Your task to perform on an android device: Show me popular games on the Play Store Image 0: 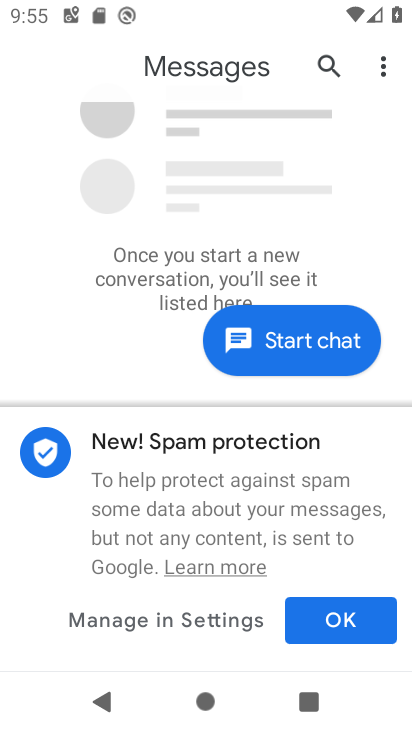
Step 0: press home button
Your task to perform on an android device: Show me popular games on the Play Store Image 1: 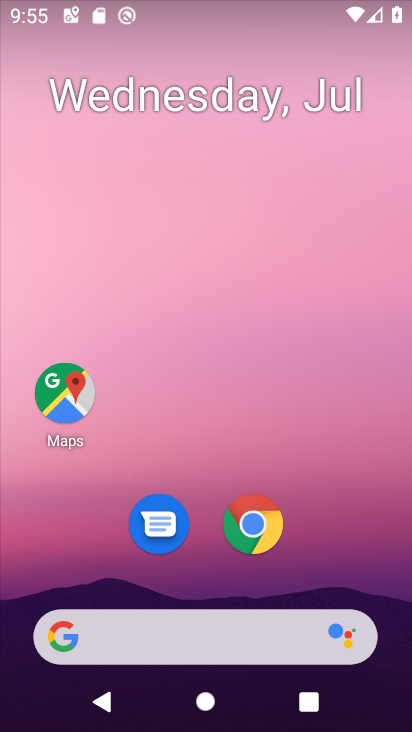
Step 1: drag from (325, 543) to (338, 83)
Your task to perform on an android device: Show me popular games on the Play Store Image 2: 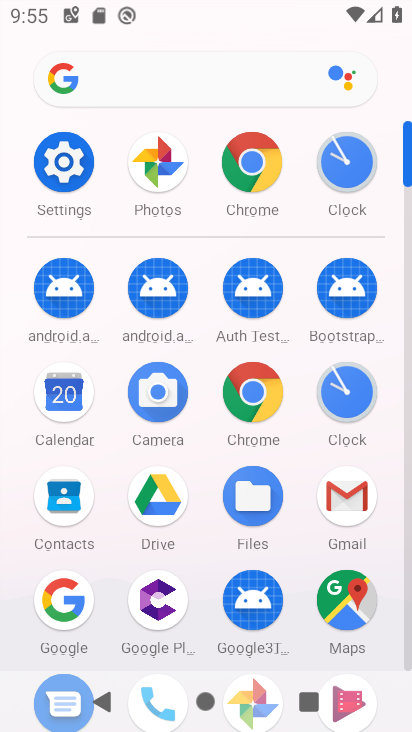
Step 2: drag from (297, 495) to (308, 189)
Your task to perform on an android device: Show me popular games on the Play Store Image 3: 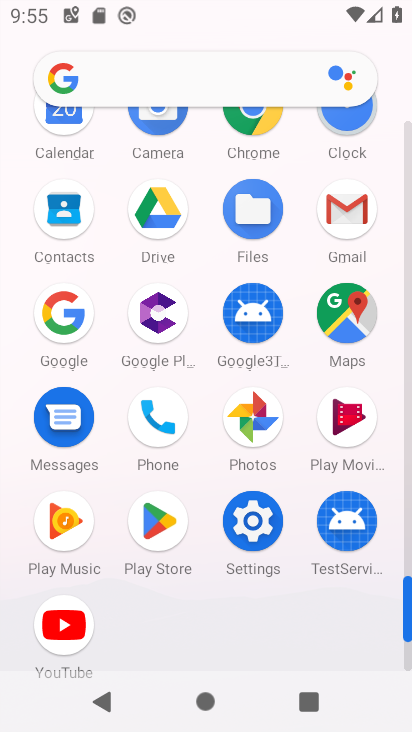
Step 3: click (162, 528)
Your task to perform on an android device: Show me popular games on the Play Store Image 4: 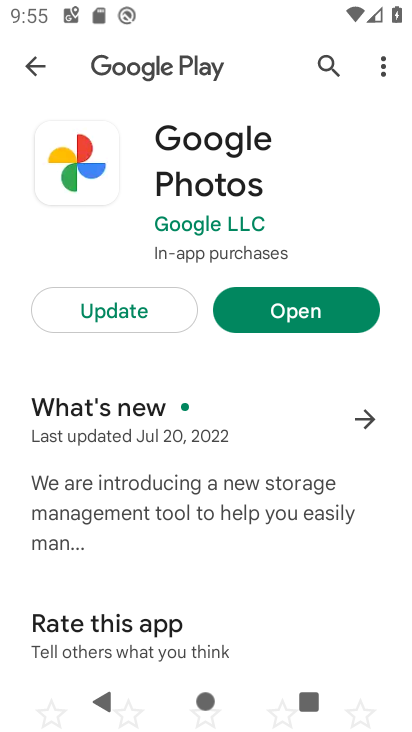
Step 4: click (38, 70)
Your task to perform on an android device: Show me popular games on the Play Store Image 5: 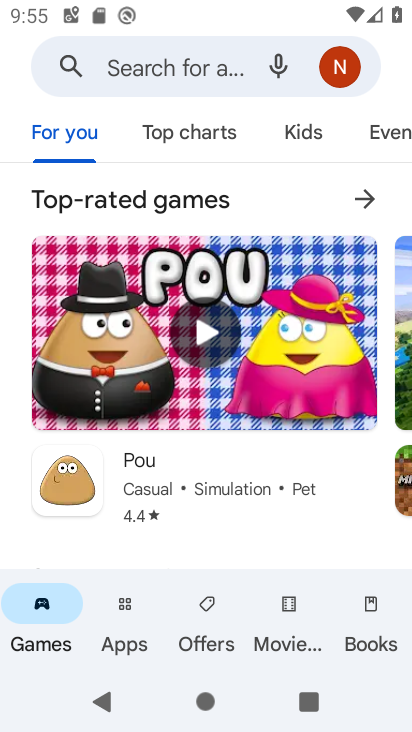
Step 5: click (366, 194)
Your task to perform on an android device: Show me popular games on the Play Store Image 6: 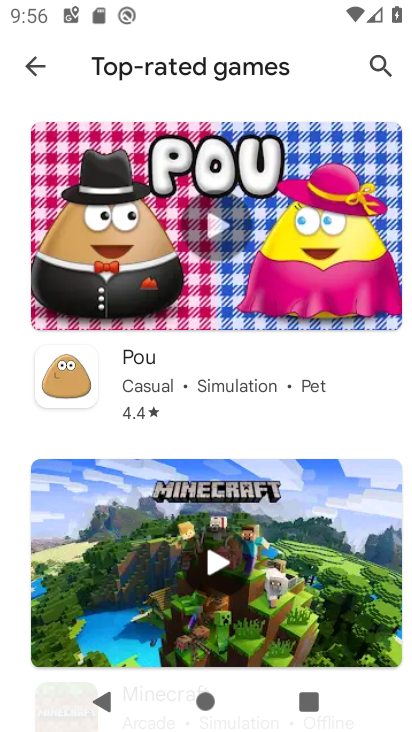
Step 6: task complete